Your task to perform on an android device: What's the weather going to be tomorrow? Image 0: 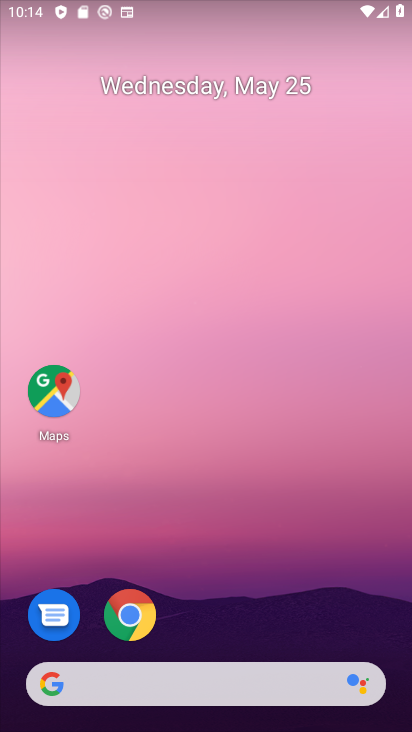
Step 0: drag from (188, 450) to (320, 19)
Your task to perform on an android device: What's the weather going to be tomorrow? Image 1: 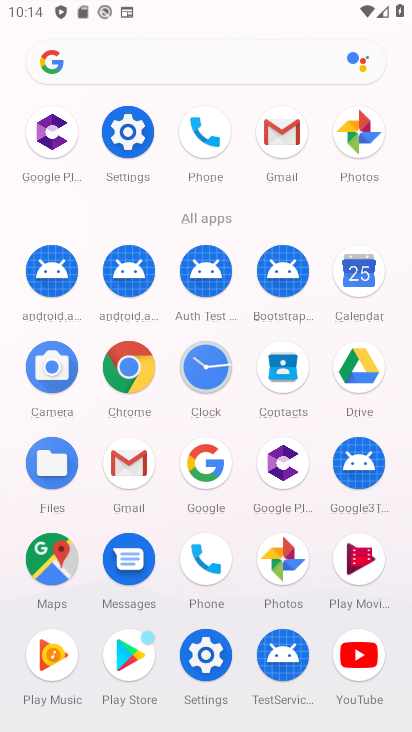
Step 1: drag from (212, 532) to (186, 232)
Your task to perform on an android device: What's the weather going to be tomorrow? Image 2: 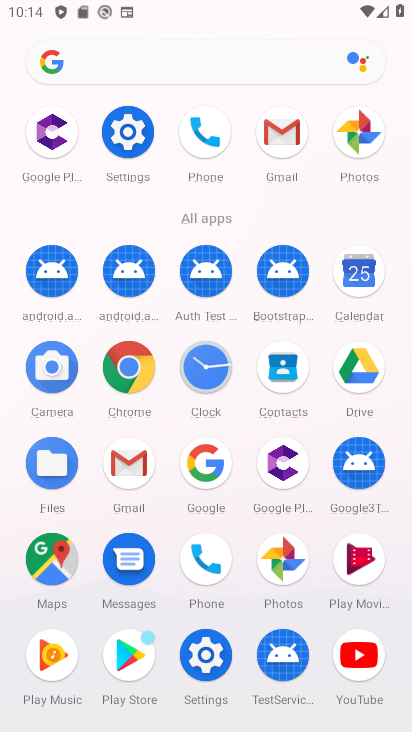
Step 2: click (211, 440)
Your task to perform on an android device: What's the weather going to be tomorrow? Image 3: 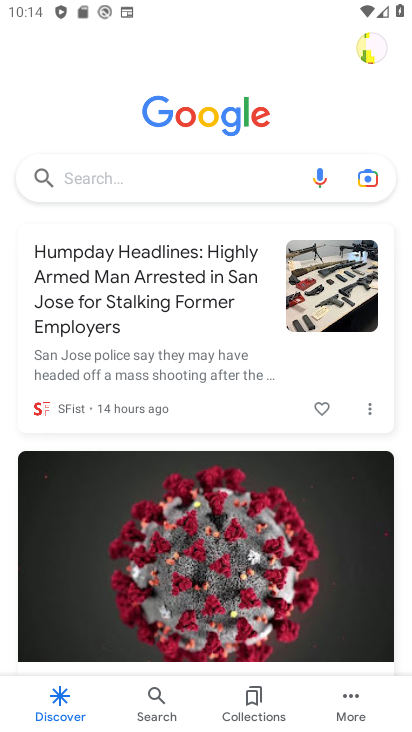
Step 3: click (178, 189)
Your task to perform on an android device: What's the weather going to be tomorrow? Image 4: 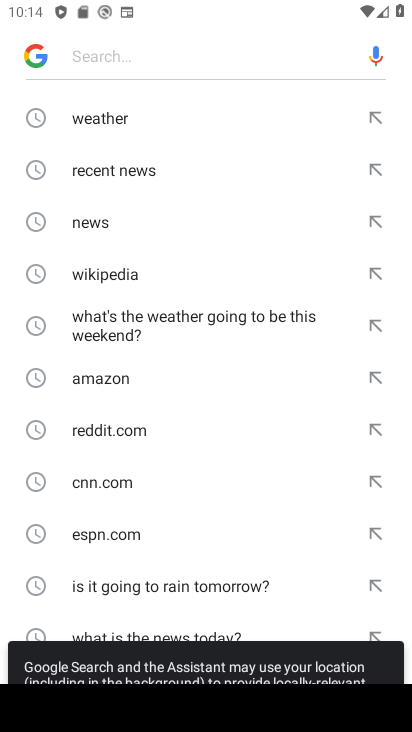
Step 4: click (107, 113)
Your task to perform on an android device: What's the weather going to be tomorrow? Image 5: 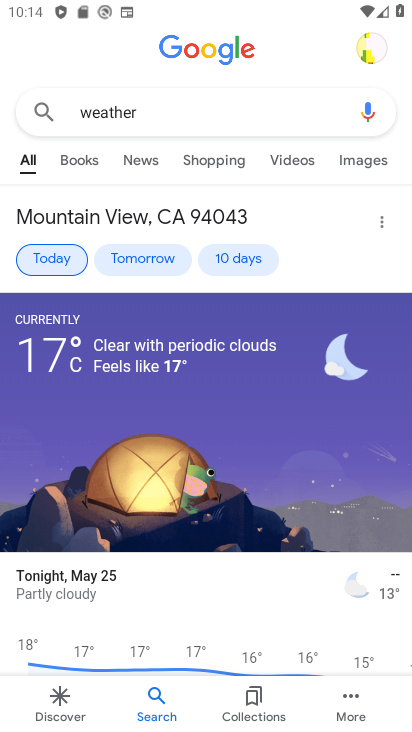
Step 5: task complete